Your task to perform on an android device: turn off javascript in the chrome app Image 0: 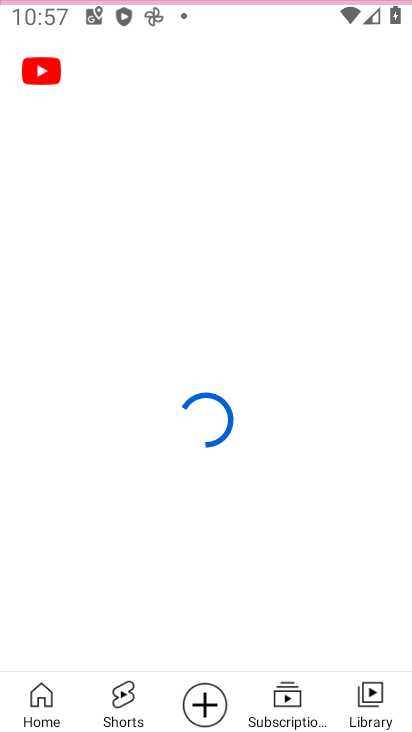
Step 0: press home button
Your task to perform on an android device: turn off javascript in the chrome app Image 1: 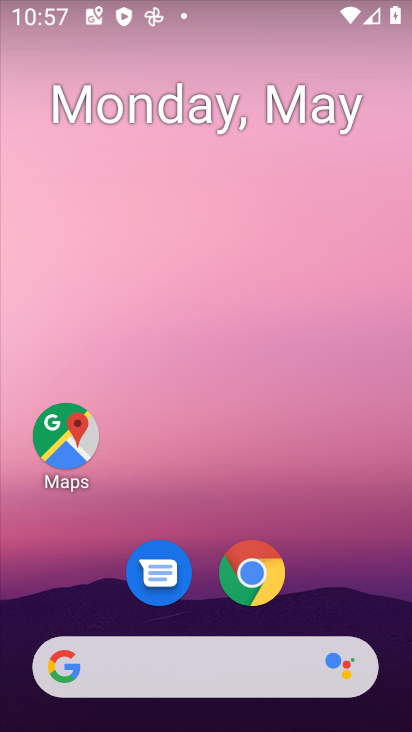
Step 1: click (242, 563)
Your task to perform on an android device: turn off javascript in the chrome app Image 2: 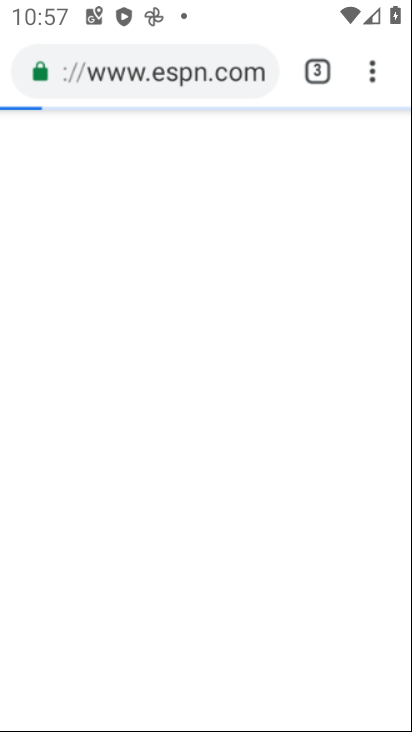
Step 2: click (363, 82)
Your task to perform on an android device: turn off javascript in the chrome app Image 3: 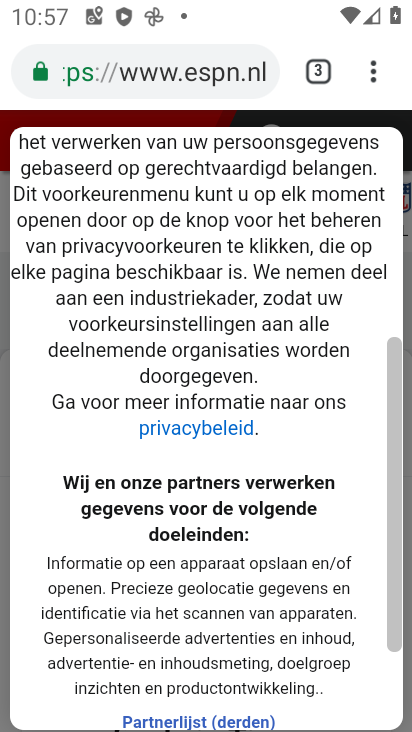
Step 3: click (381, 79)
Your task to perform on an android device: turn off javascript in the chrome app Image 4: 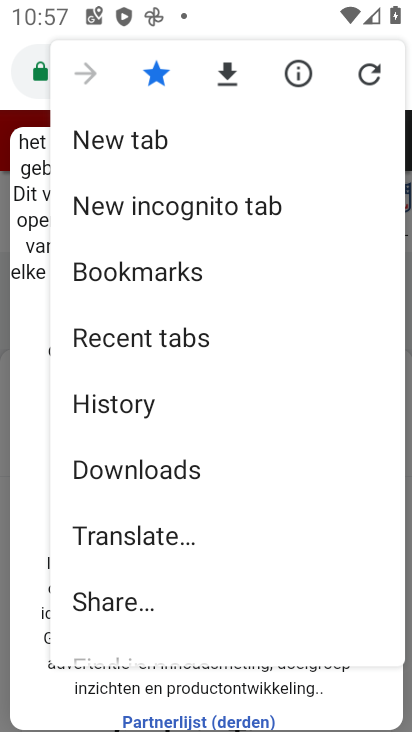
Step 4: drag from (170, 597) to (188, 333)
Your task to perform on an android device: turn off javascript in the chrome app Image 5: 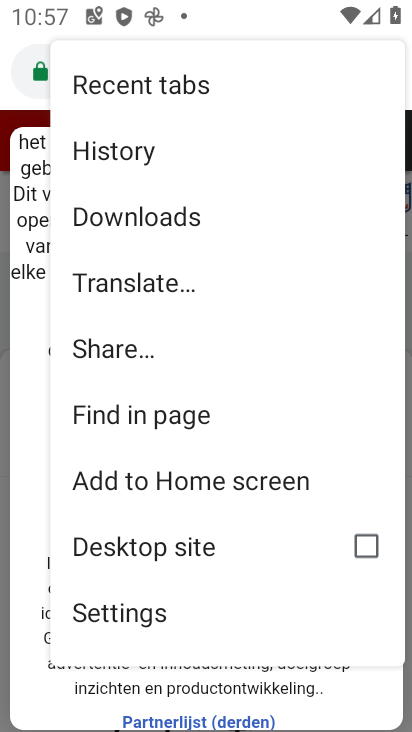
Step 5: click (158, 589)
Your task to perform on an android device: turn off javascript in the chrome app Image 6: 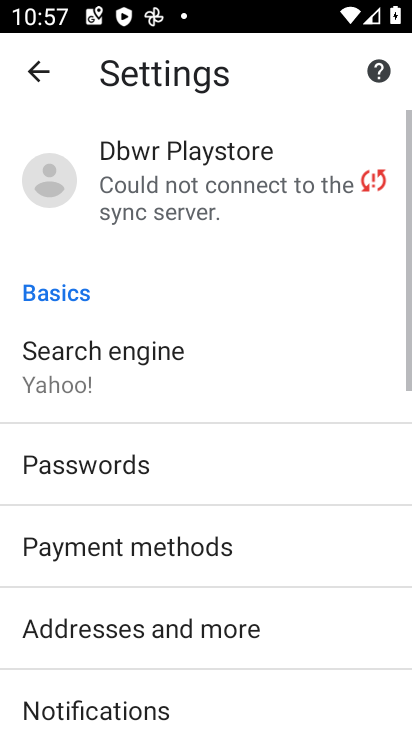
Step 6: drag from (220, 610) to (211, 278)
Your task to perform on an android device: turn off javascript in the chrome app Image 7: 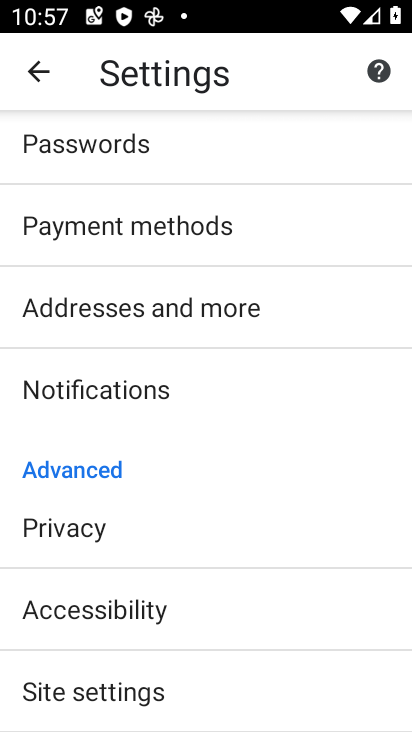
Step 7: click (184, 669)
Your task to perform on an android device: turn off javascript in the chrome app Image 8: 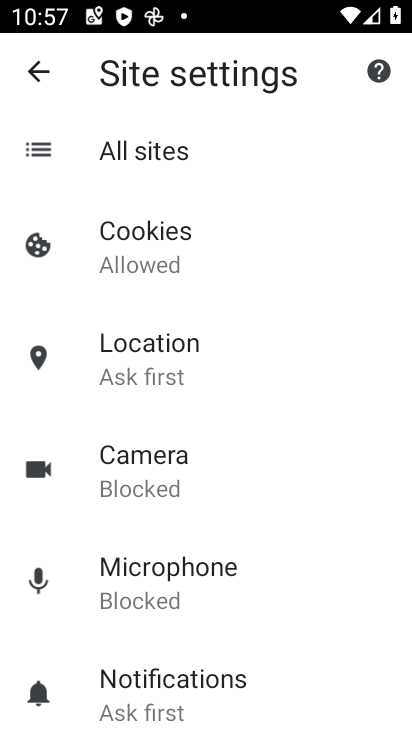
Step 8: drag from (196, 704) to (201, 335)
Your task to perform on an android device: turn off javascript in the chrome app Image 9: 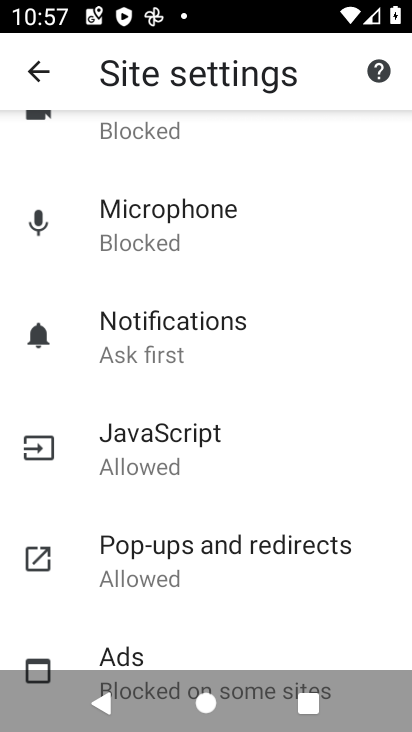
Step 9: click (223, 479)
Your task to perform on an android device: turn off javascript in the chrome app Image 10: 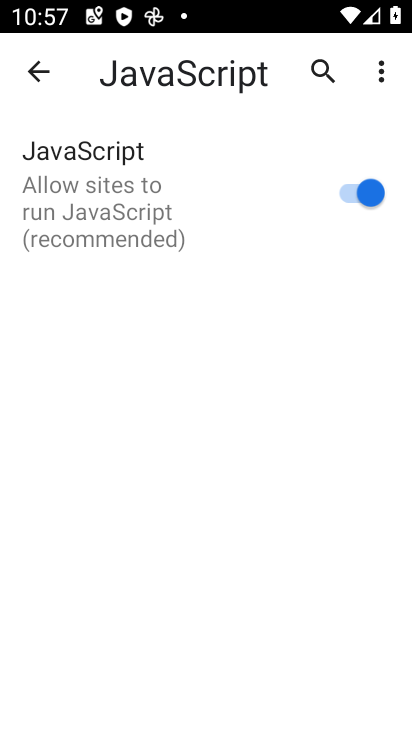
Step 10: click (343, 193)
Your task to perform on an android device: turn off javascript in the chrome app Image 11: 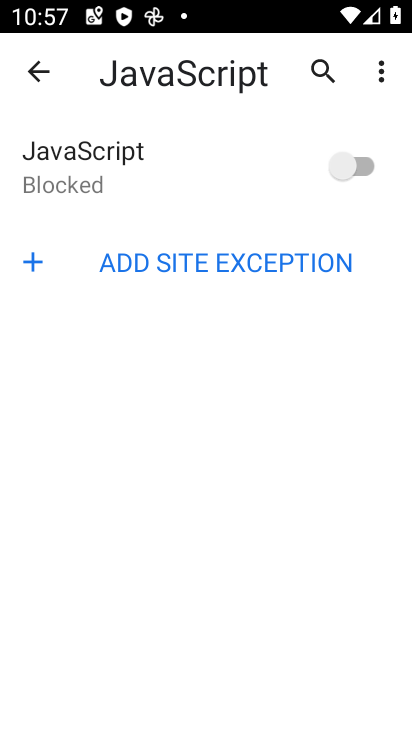
Step 11: task complete